Your task to perform on an android device: toggle pop-ups in chrome Image 0: 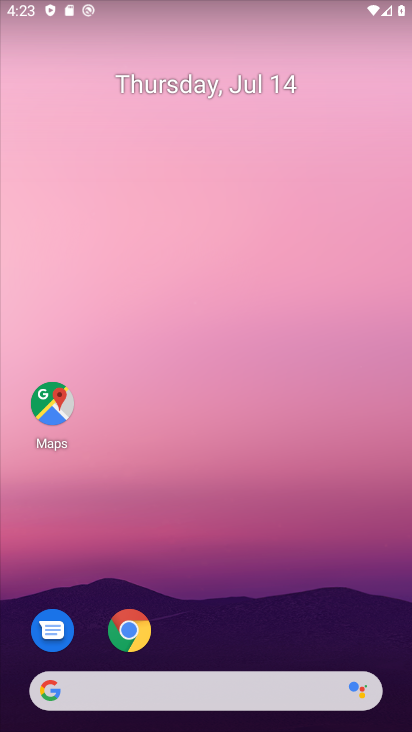
Step 0: drag from (269, 644) to (203, 55)
Your task to perform on an android device: toggle pop-ups in chrome Image 1: 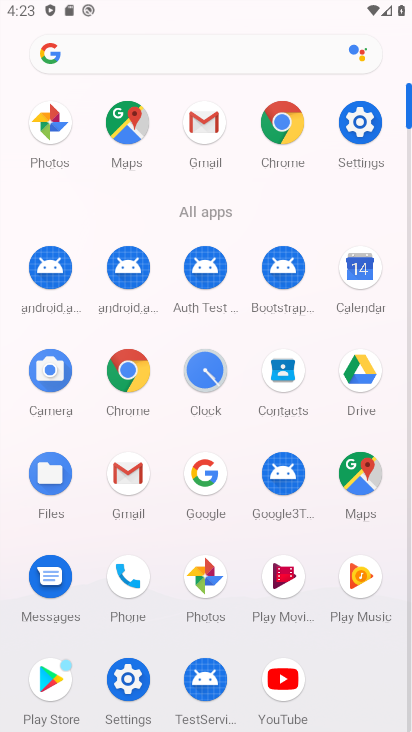
Step 1: click (273, 127)
Your task to perform on an android device: toggle pop-ups in chrome Image 2: 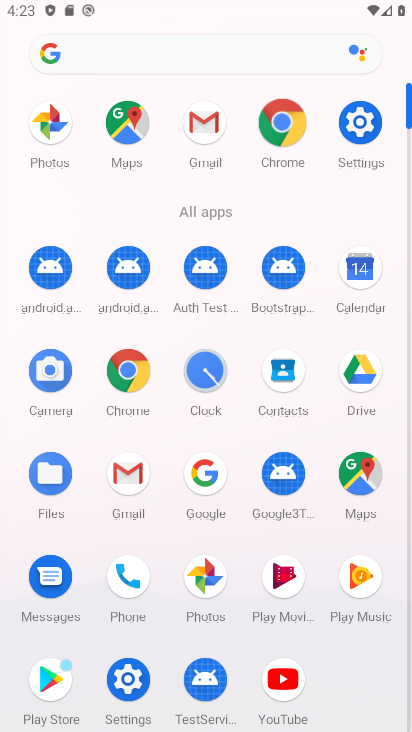
Step 2: click (272, 127)
Your task to perform on an android device: toggle pop-ups in chrome Image 3: 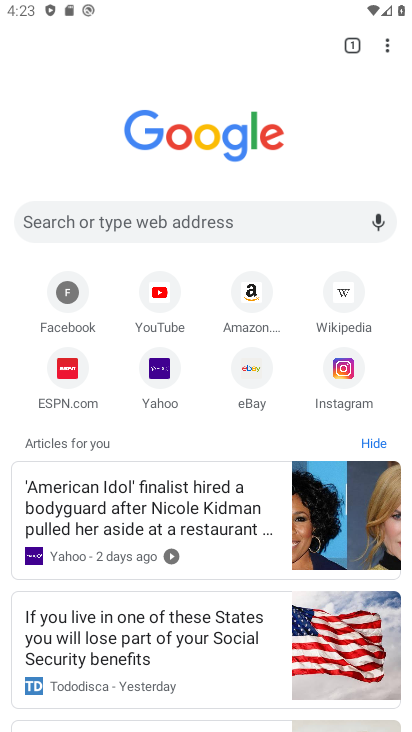
Step 3: drag from (392, 48) to (224, 380)
Your task to perform on an android device: toggle pop-ups in chrome Image 4: 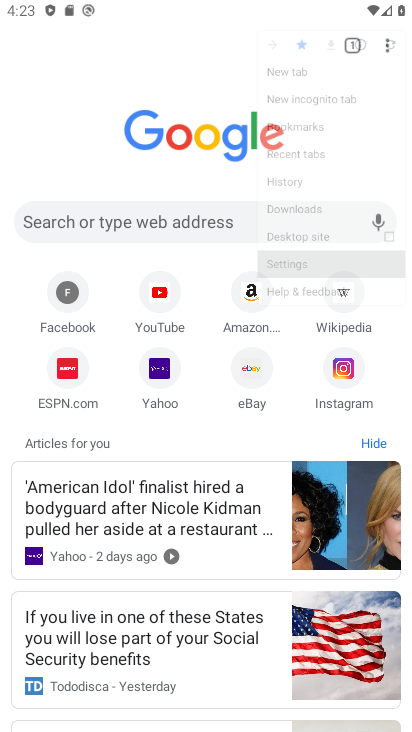
Step 4: click (224, 380)
Your task to perform on an android device: toggle pop-ups in chrome Image 5: 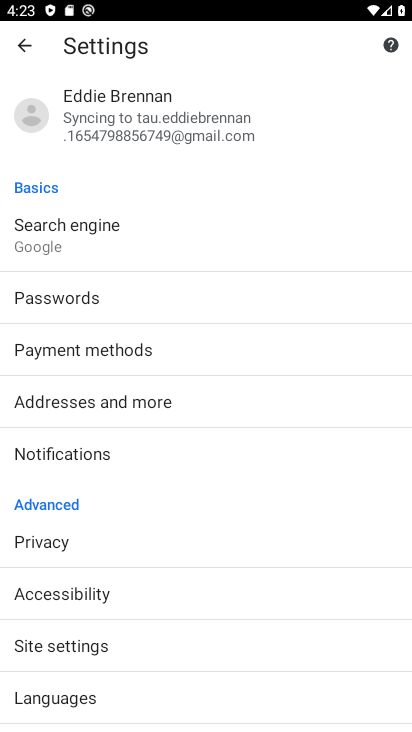
Step 5: drag from (87, 569) to (64, 300)
Your task to perform on an android device: toggle pop-ups in chrome Image 6: 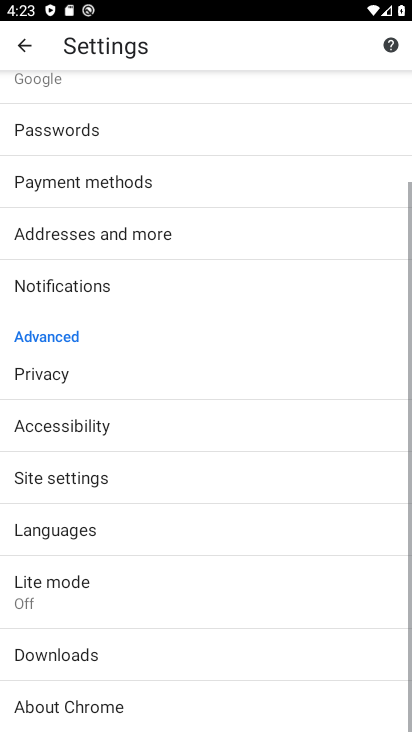
Step 6: drag from (120, 546) to (120, 278)
Your task to perform on an android device: toggle pop-ups in chrome Image 7: 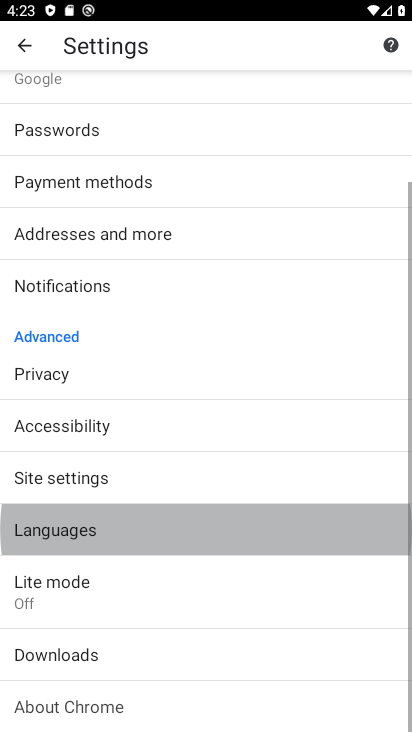
Step 7: drag from (132, 489) to (138, 389)
Your task to perform on an android device: toggle pop-ups in chrome Image 8: 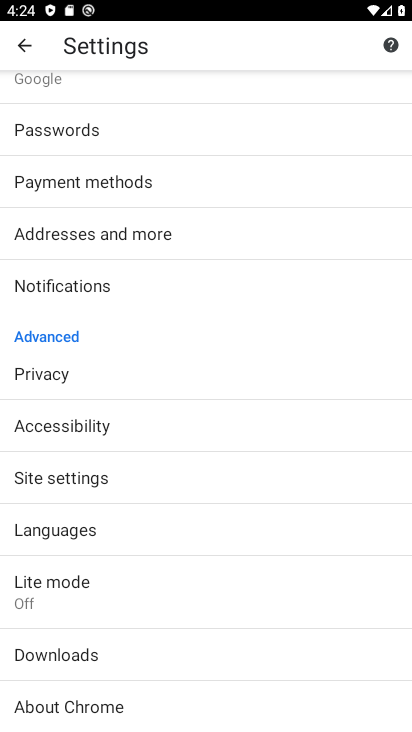
Step 8: click (50, 469)
Your task to perform on an android device: toggle pop-ups in chrome Image 9: 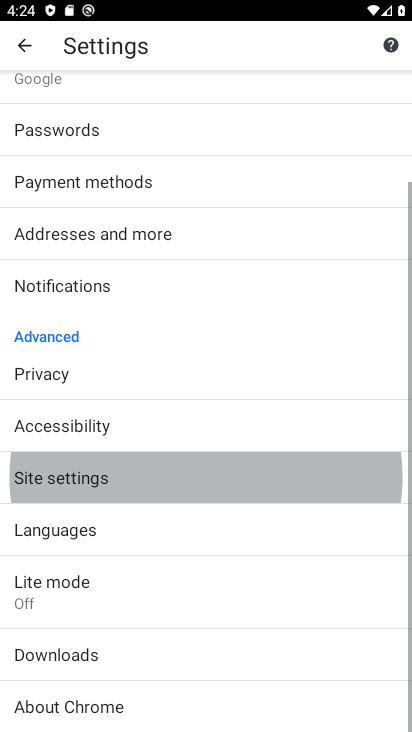
Step 9: click (51, 471)
Your task to perform on an android device: toggle pop-ups in chrome Image 10: 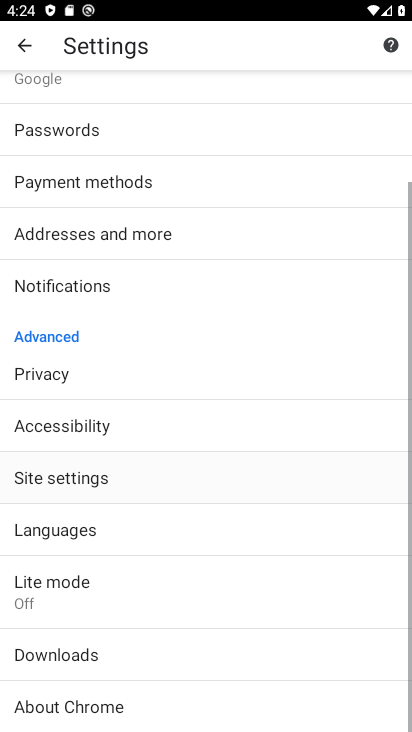
Step 10: click (52, 472)
Your task to perform on an android device: toggle pop-ups in chrome Image 11: 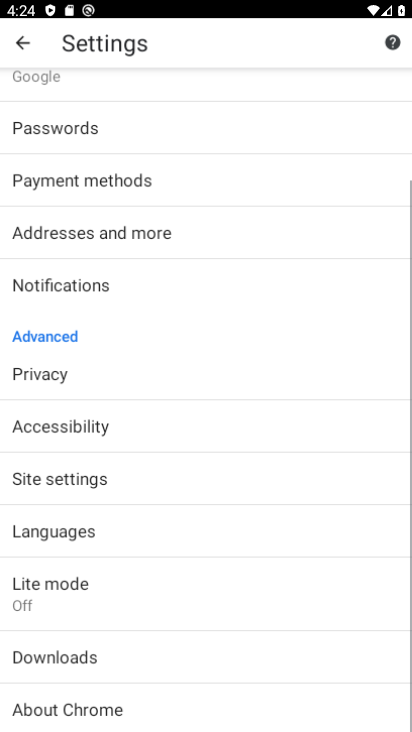
Step 11: click (54, 474)
Your task to perform on an android device: toggle pop-ups in chrome Image 12: 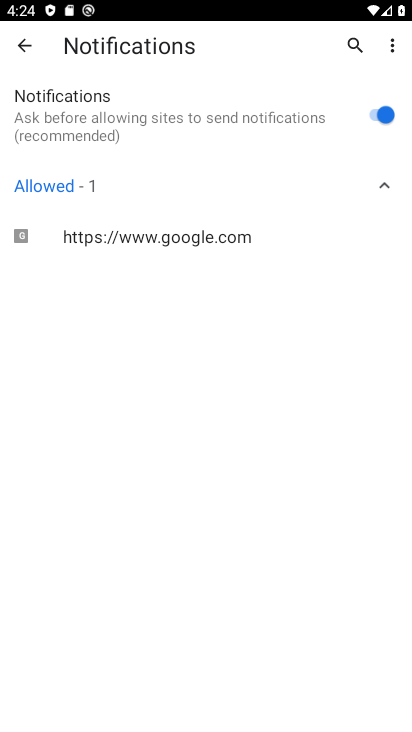
Step 12: click (21, 41)
Your task to perform on an android device: toggle pop-ups in chrome Image 13: 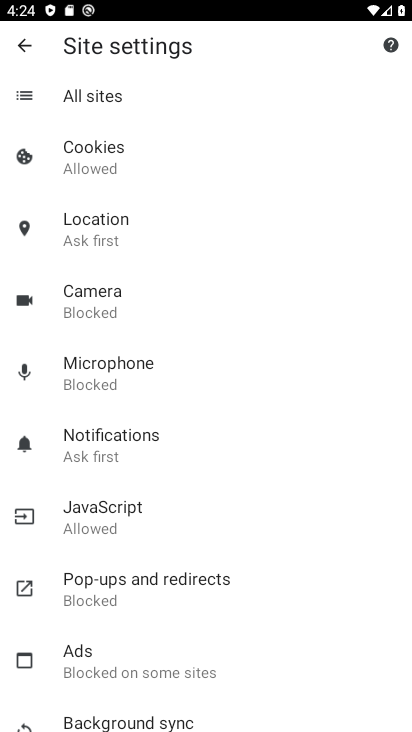
Step 13: click (112, 579)
Your task to perform on an android device: toggle pop-ups in chrome Image 14: 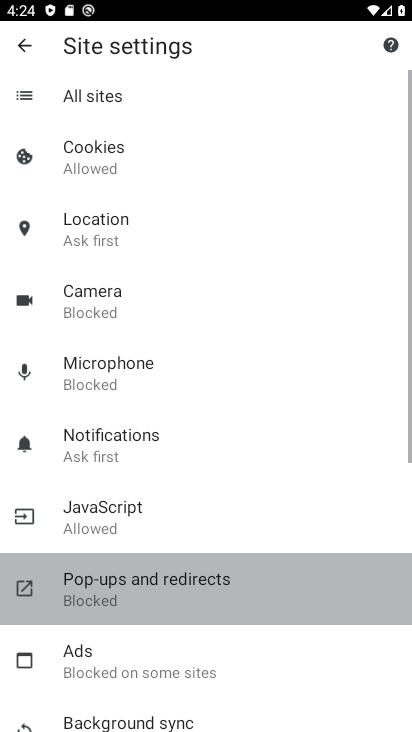
Step 14: click (112, 579)
Your task to perform on an android device: toggle pop-ups in chrome Image 15: 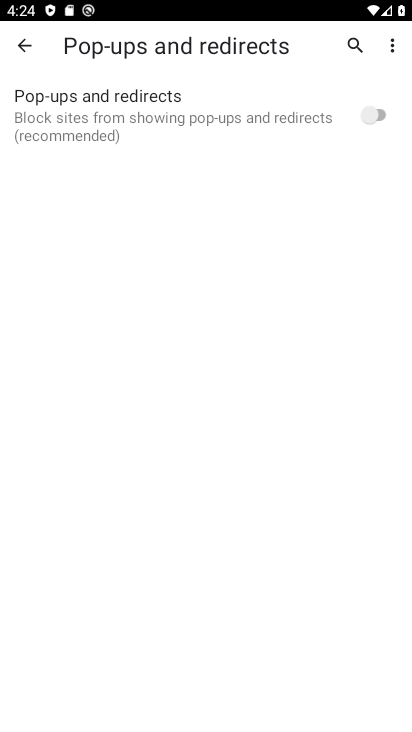
Step 15: click (371, 112)
Your task to perform on an android device: toggle pop-ups in chrome Image 16: 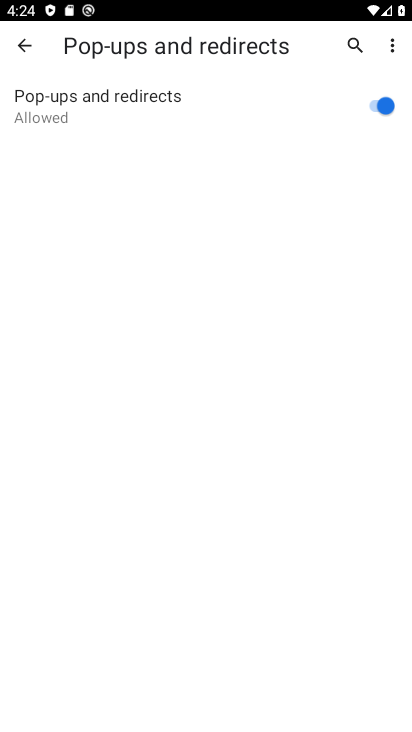
Step 16: task complete